Your task to perform on an android device: Open the calendar app, open the side menu, and click the "Day" option Image 0: 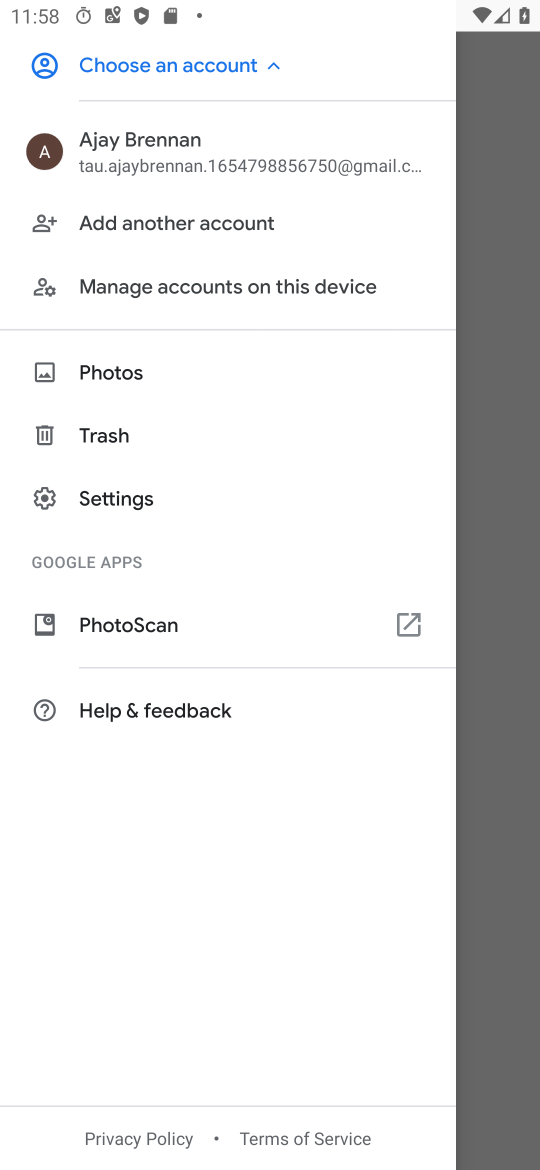
Step 0: press back button
Your task to perform on an android device: Open the calendar app, open the side menu, and click the "Day" option Image 1: 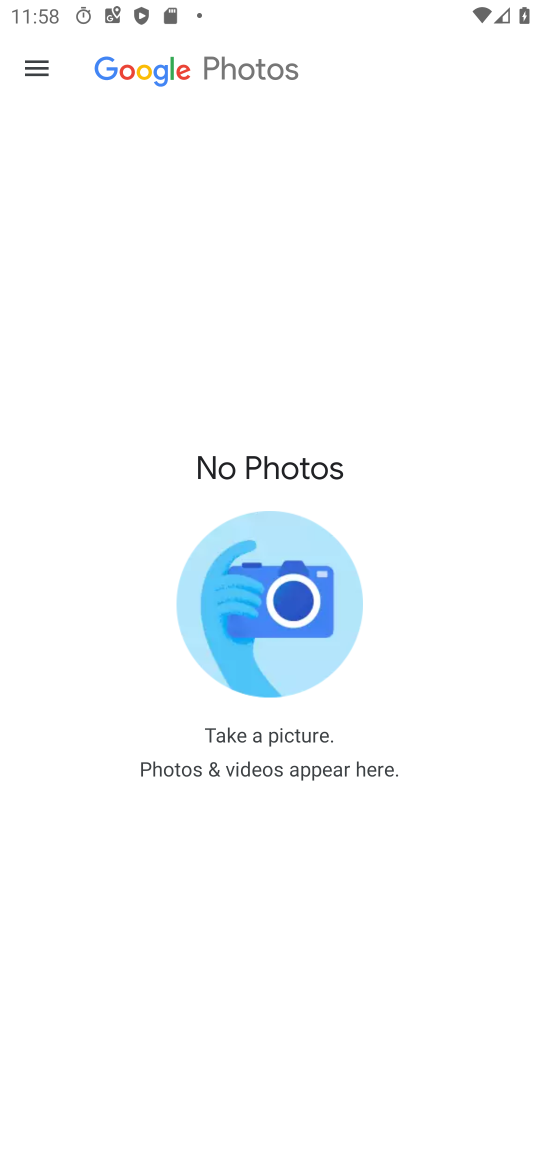
Step 1: press home button
Your task to perform on an android device: Open the calendar app, open the side menu, and click the "Day" option Image 2: 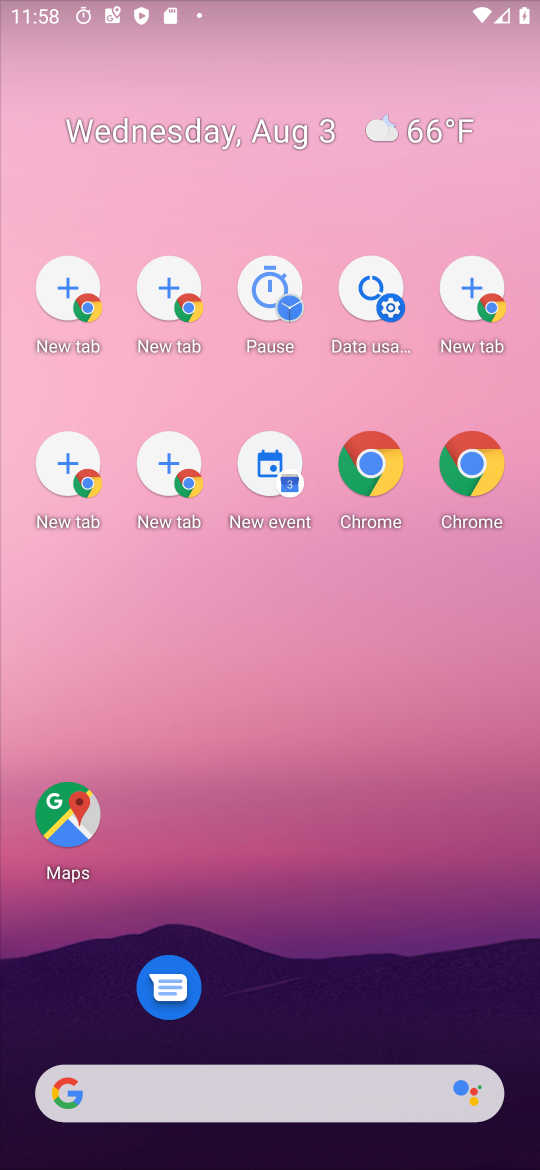
Step 2: drag from (284, 885) to (119, 472)
Your task to perform on an android device: Open the calendar app, open the side menu, and click the "Day" option Image 3: 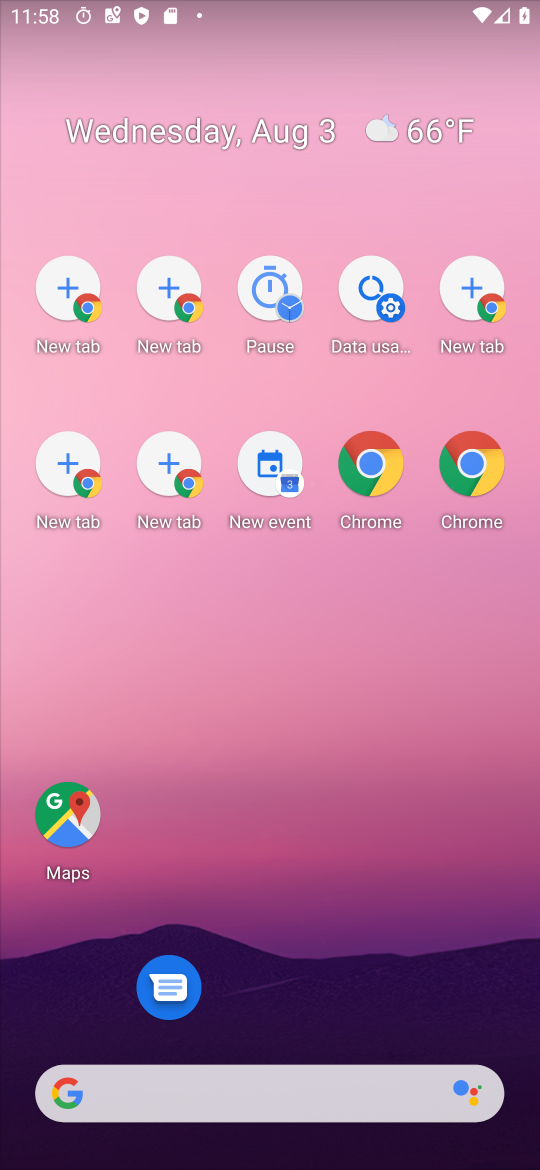
Step 3: drag from (140, 806) to (96, 532)
Your task to perform on an android device: Open the calendar app, open the side menu, and click the "Day" option Image 4: 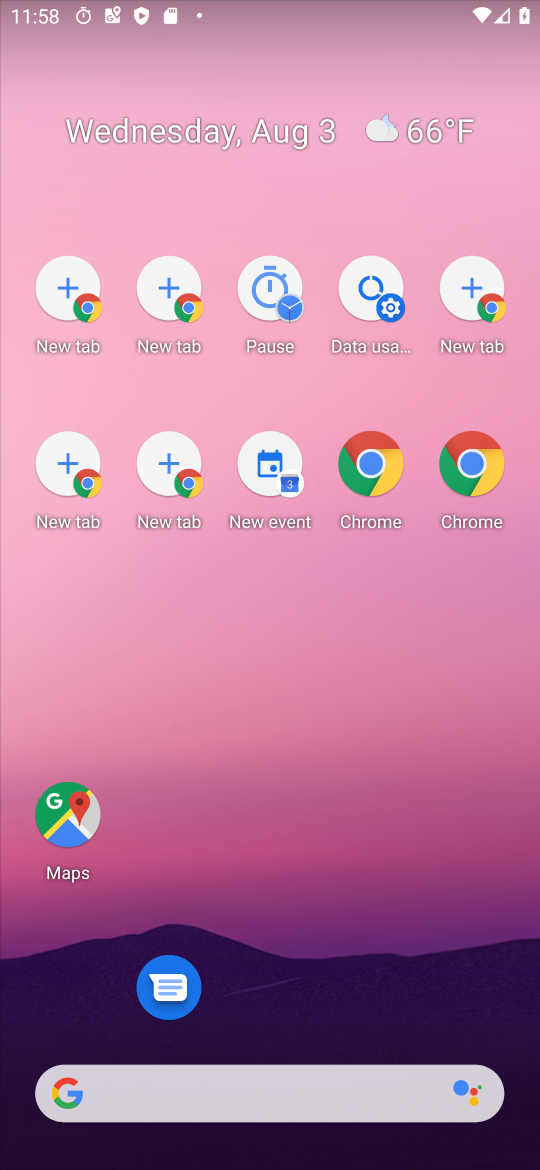
Step 4: drag from (296, 1066) to (249, 185)
Your task to perform on an android device: Open the calendar app, open the side menu, and click the "Day" option Image 5: 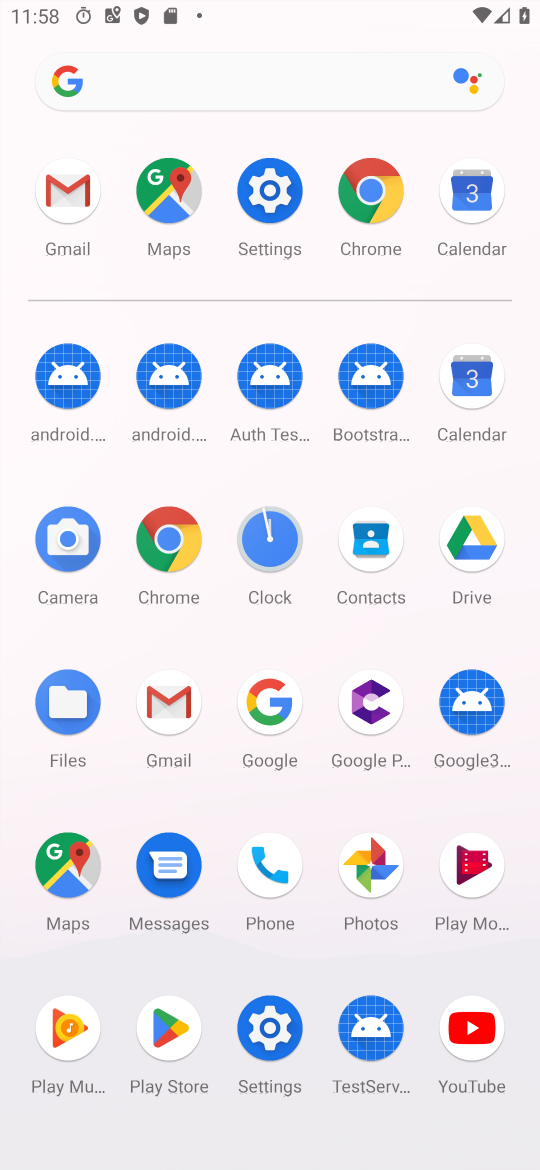
Step 5: click (468, 389)
Your task to perform on an android device: Open the calendar app, open the side menu, and click the "Day" option Image 6: 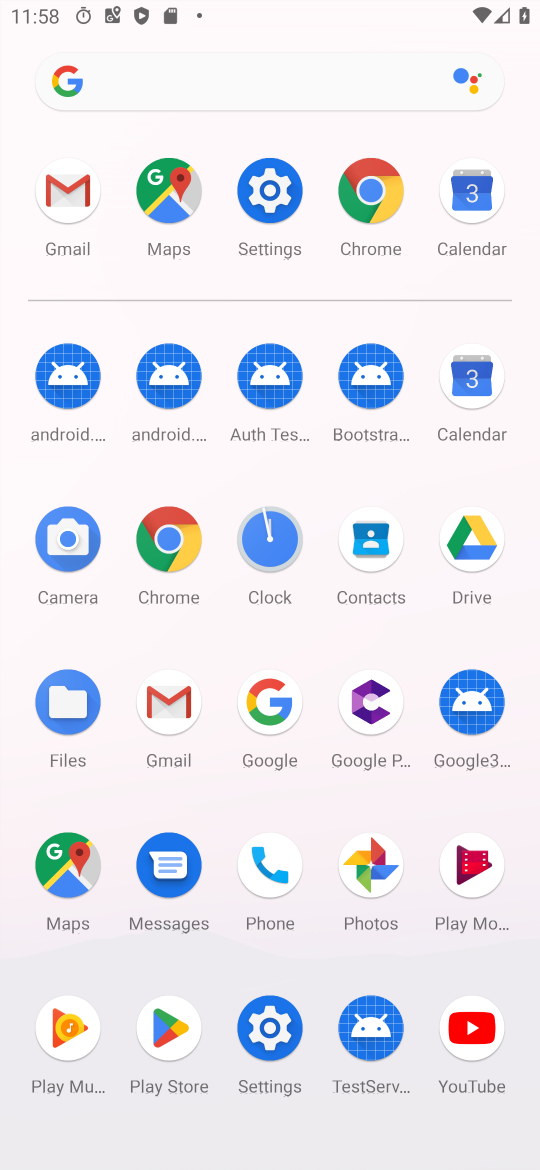
Step 6: click (468, 384)
Your task to perform on an android device: Open the calendar app, open the side menu, and click the "Day" option Image 7: 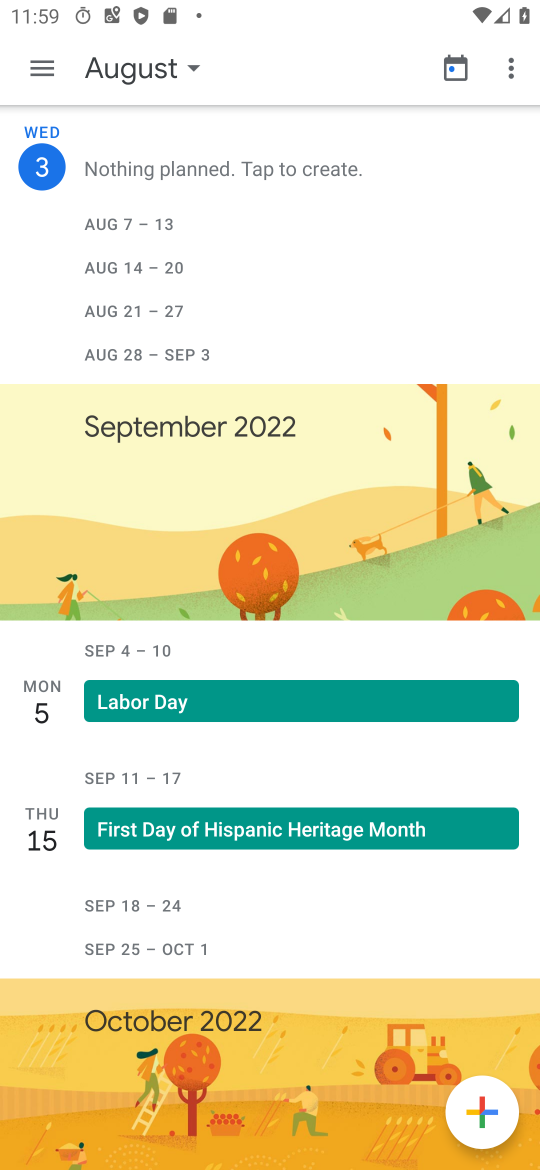
Step 7: click (37, 66)
Your task to perform on an android device: Open the calendar app, open the side menu, and click the "Day" option Image 8: 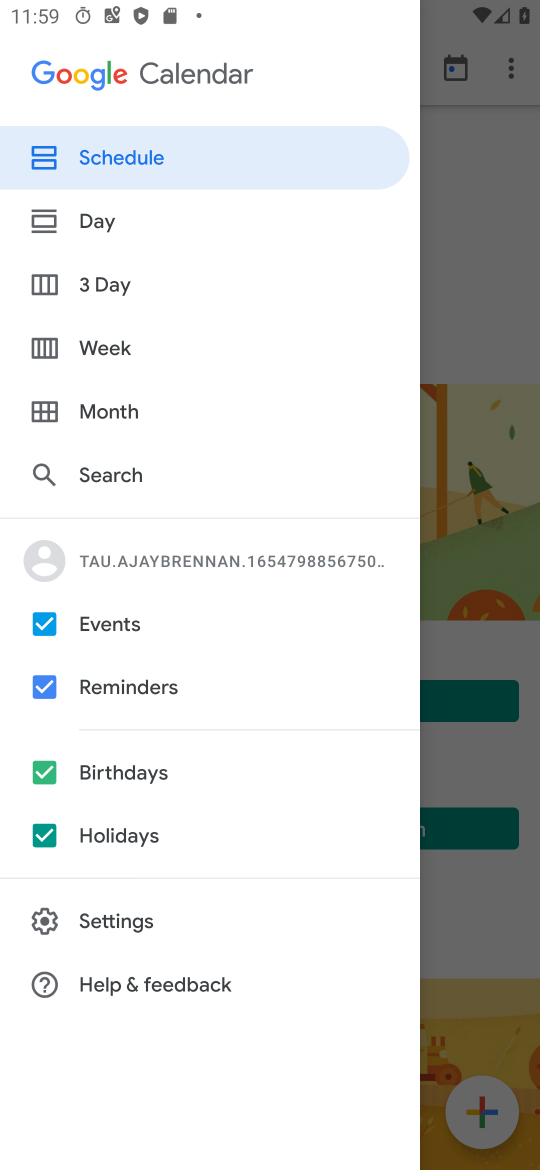
Step 8: click (97, 212)
Your task to perform on an android device: Open the calendar app, open the side menu, and click the "Day" option Image 9: 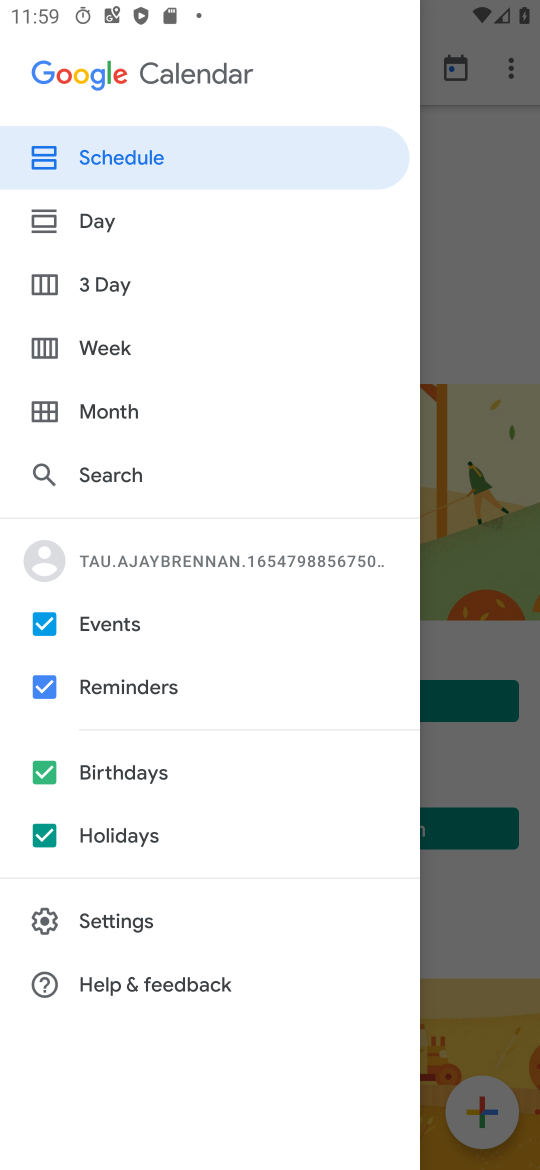
Step 9: click (100, 216)
Your task to perform on an android device: Open the calendar app, open the side menu, and click the "Day" option Image 10: 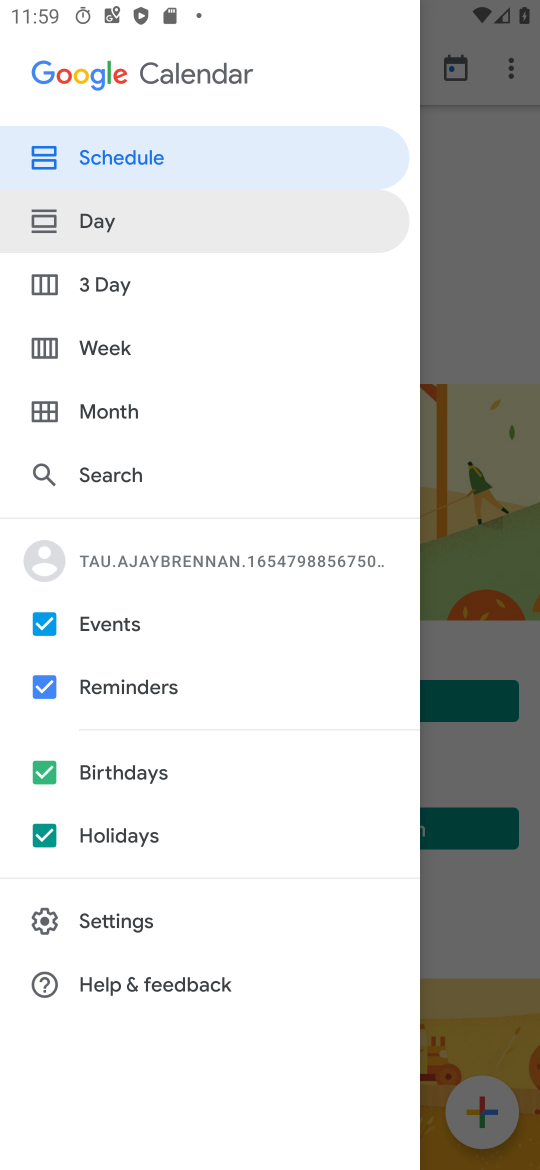
Step 10: click (99, 217)
Your task to perform on an android device: Open the calendar app, open the side menu, and click the "Day" option Image 11: 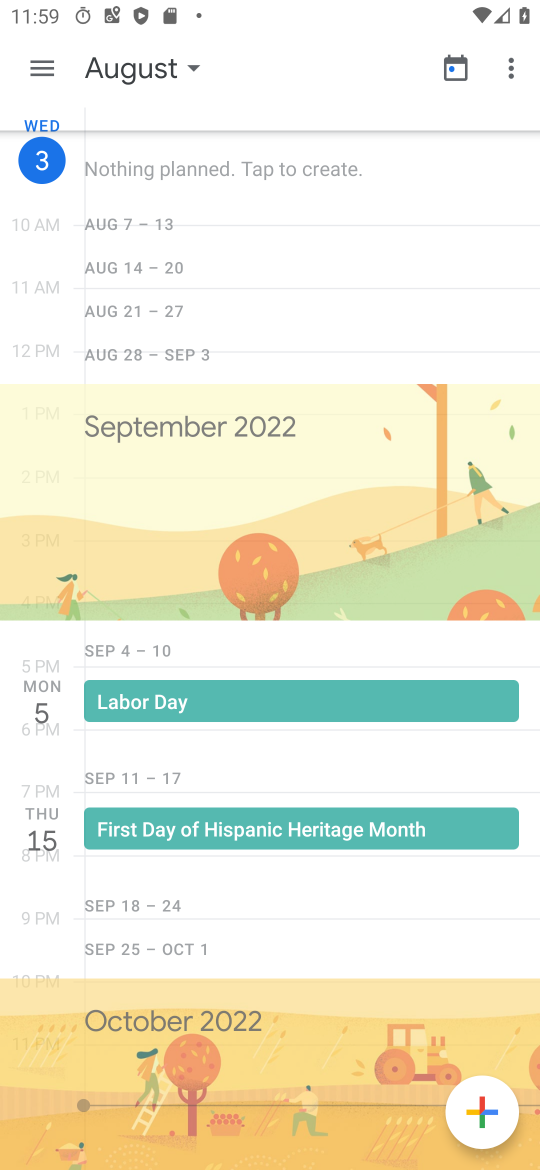
Step 11: task complete